Your task to perform on an android device: turn off picture-in-picture Image 0: 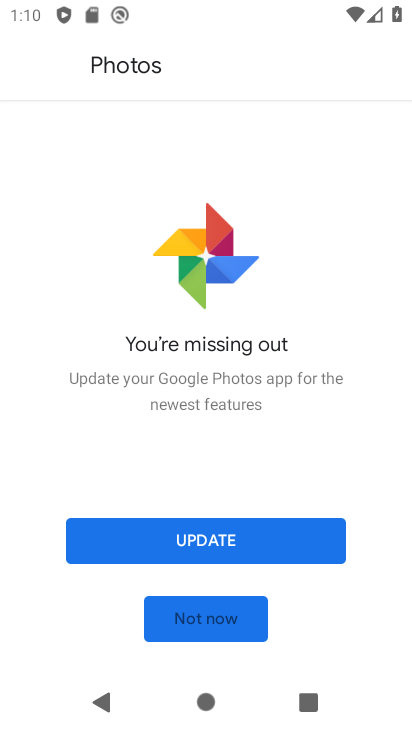
Step 0: press home button
Your task to perform on an android device: turn off picture-in-picture Image 1: 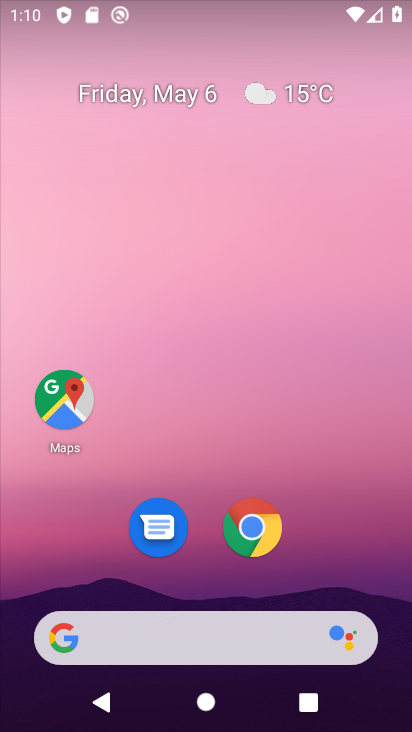
Step 1: click (259, 525)
Your task to perform on an android device: turn off picture-in-picture Image 2: 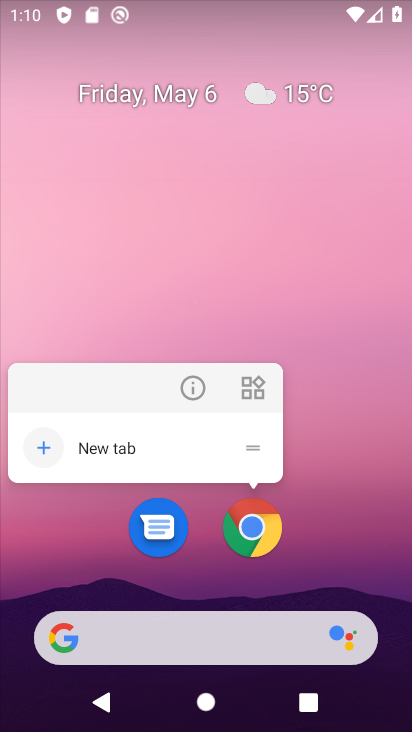
Step 2: click (191, 394)
Your task to perform on an android device: turn off picture-in-picture Image 3: 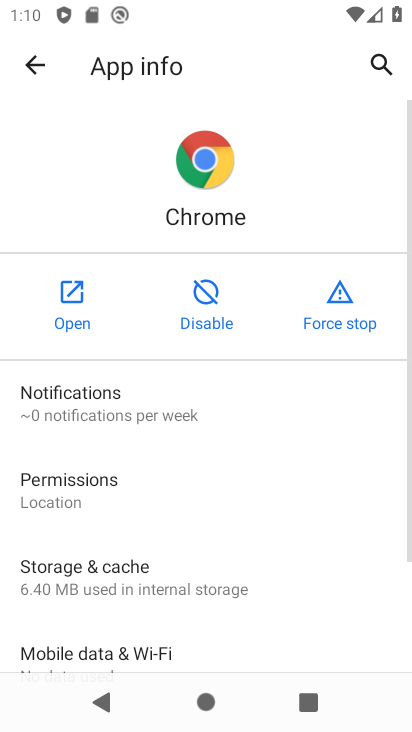
Step 3: drag from (3, 624) to (108, 178)
Your task to perform on an android device: turn off picture-in-picture Image 4: 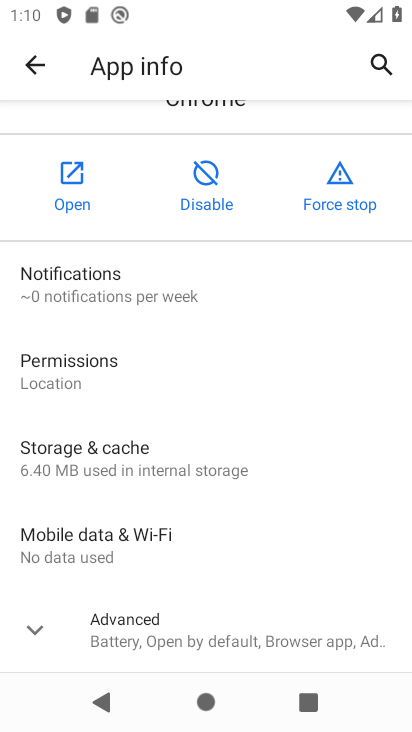
Step 4: click (121, 630)
Your task to perform on an android device: turn off picture-in-picture Image 5: 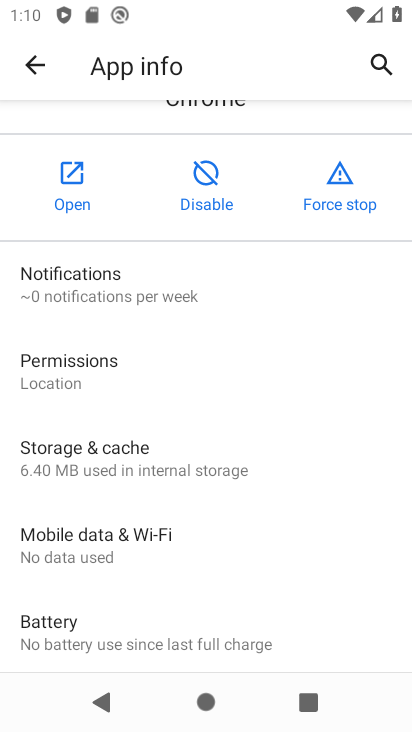
Step 5: drag from (121, 630) to (209, 238)
Your task to perform on an android device: turn off picture-in-picture Image 6: 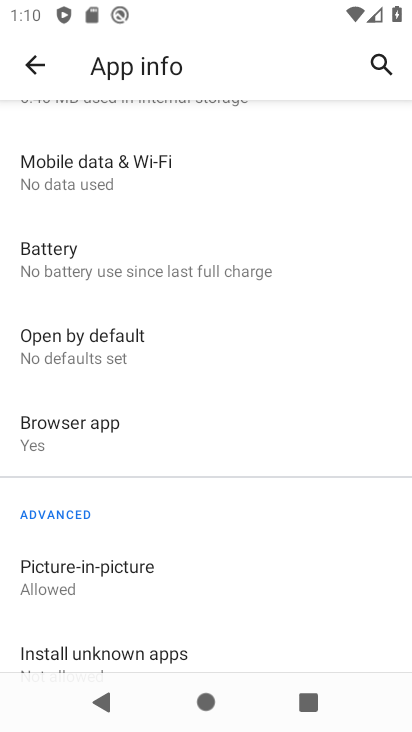
Step 6: click (135, 611)
Your task to perform on an android device: turn off picture-in-picture Image 7: 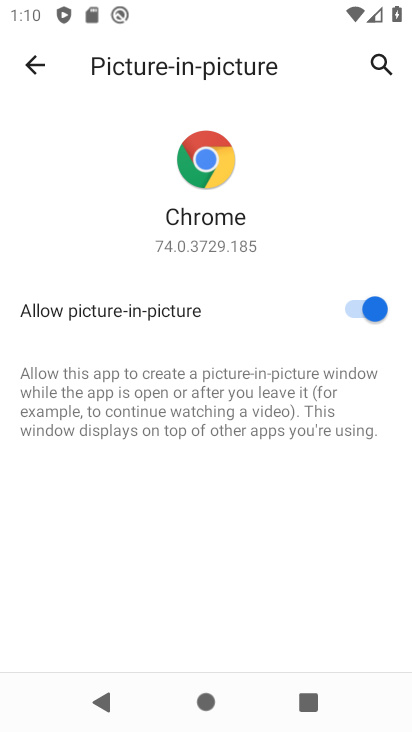
Step 7: click (364, 307)
Your task to perform on an android device: turn off picture-in-picture Image 8: 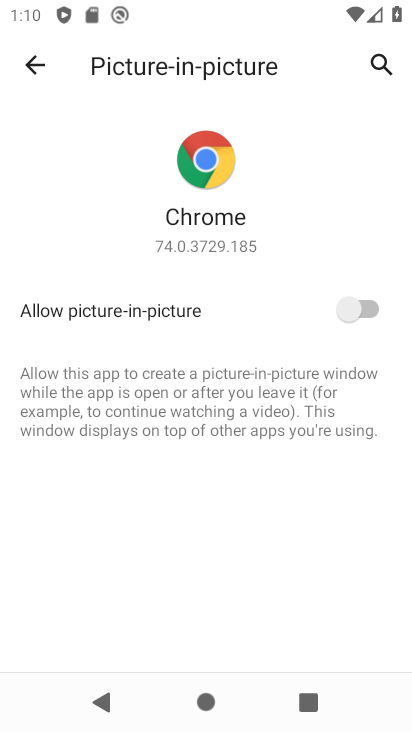
Step 8: task complete